Your task to perform on an android device: set the stopwatch Image 0: 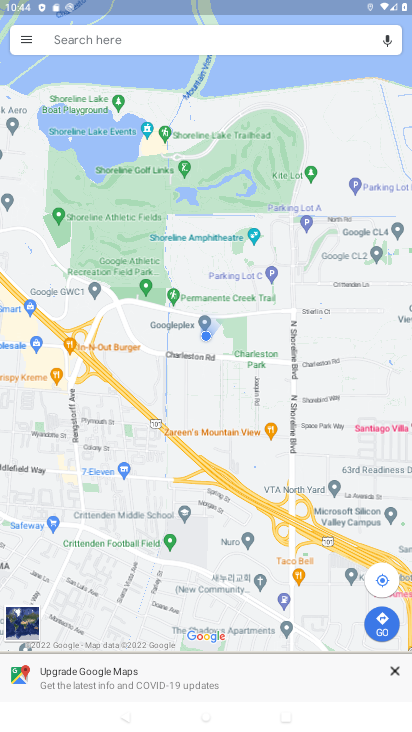
Step 0: press home button
Your task to perform on an android device: set the stopwatch Image 1: 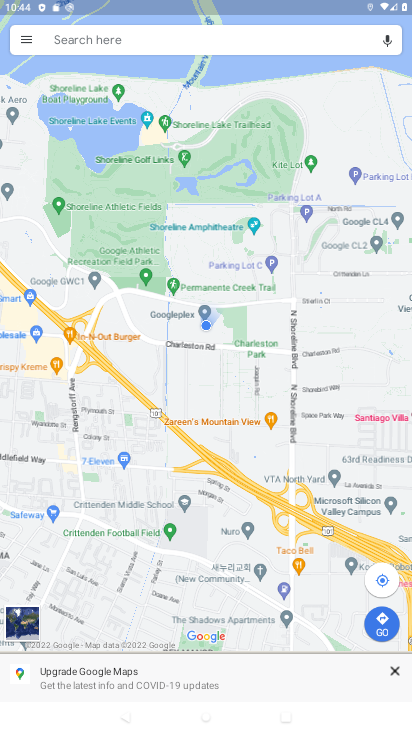
Step 1: drag from (371, 635) to (168, 25)
Your task to perform on an android device: set the stopwatch Image 2: 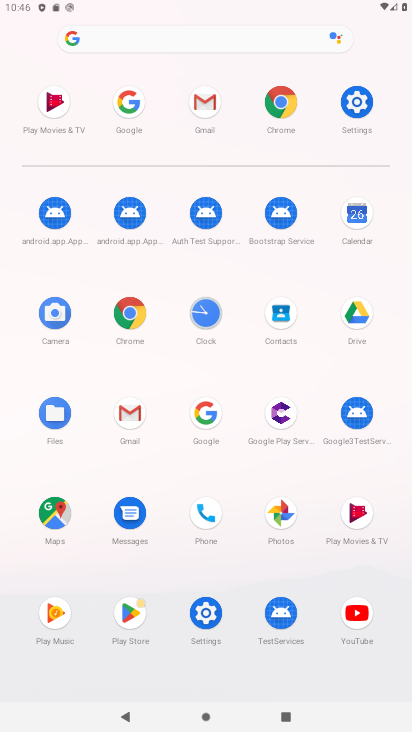
Step 2: click (194, 322)
Your task to perform on an android device: set the stopwatch Image 3: 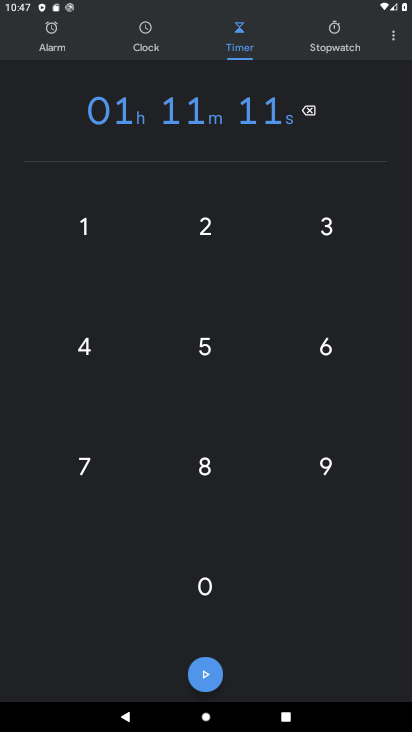
Step 3: click (342, 34)
Your task to perform on an android device: set the stopwatch Image 4: 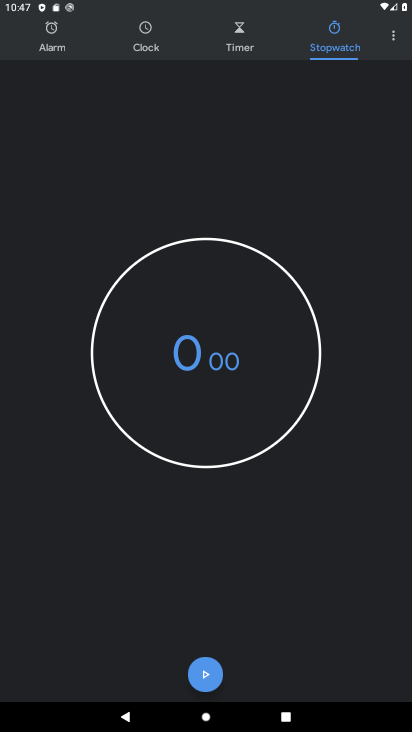
Step 4: click (198, 678)
Your task to perform on an android device: set the stopwatch Image 5: 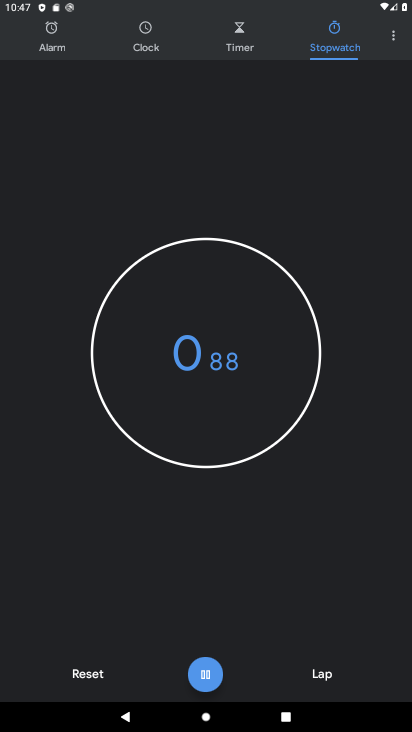
Step 5: click (198, 678)
Your task to perform on an android device: set the stopwatch Image 6: 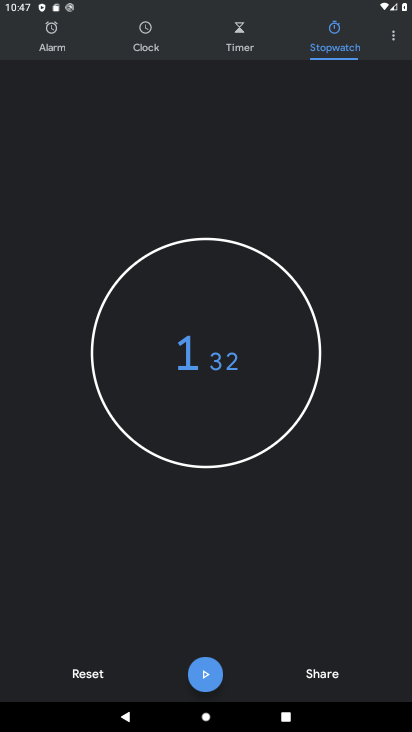
Step 6: task complete